Your task to perform on an android device: Go to Maps Image 0: 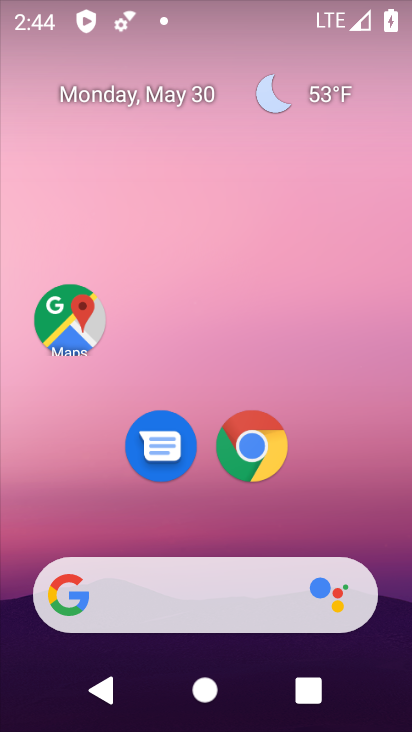
Step 0: click (69, 322)
Your task to perform on an android device: Go to Maps Image 1: 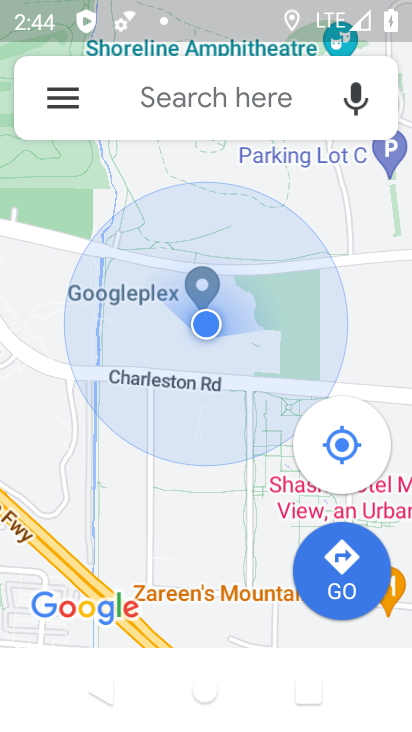
Step 1: task complete